Your task to perform on an android device: move a message to another label in the gmail app Image 0: 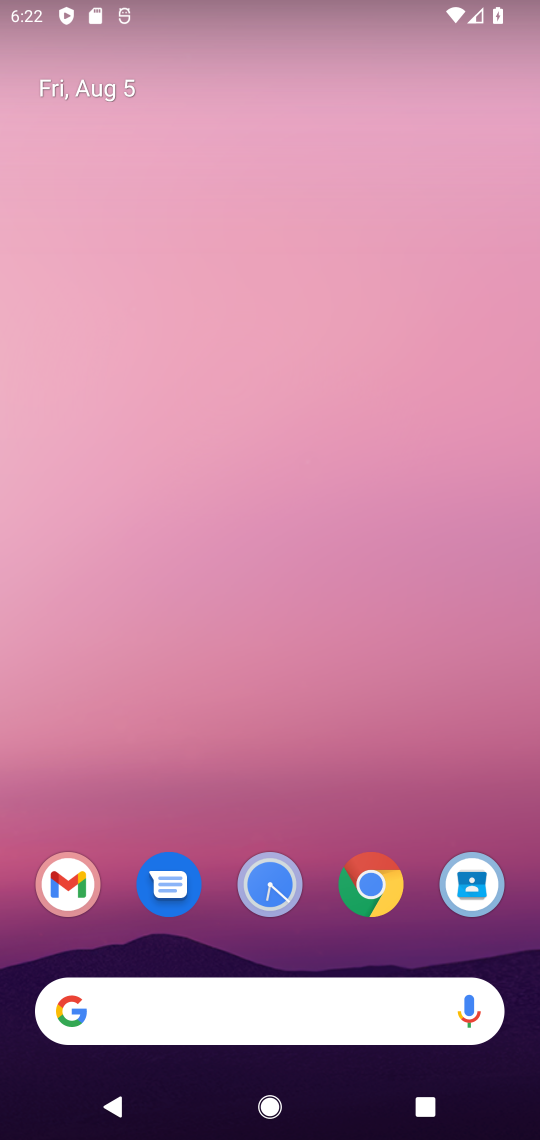
Step 0: drag from (315, 855) to (317, 167)
Your task to perform on an android device: move a message to another label in the gmail app Image 1: 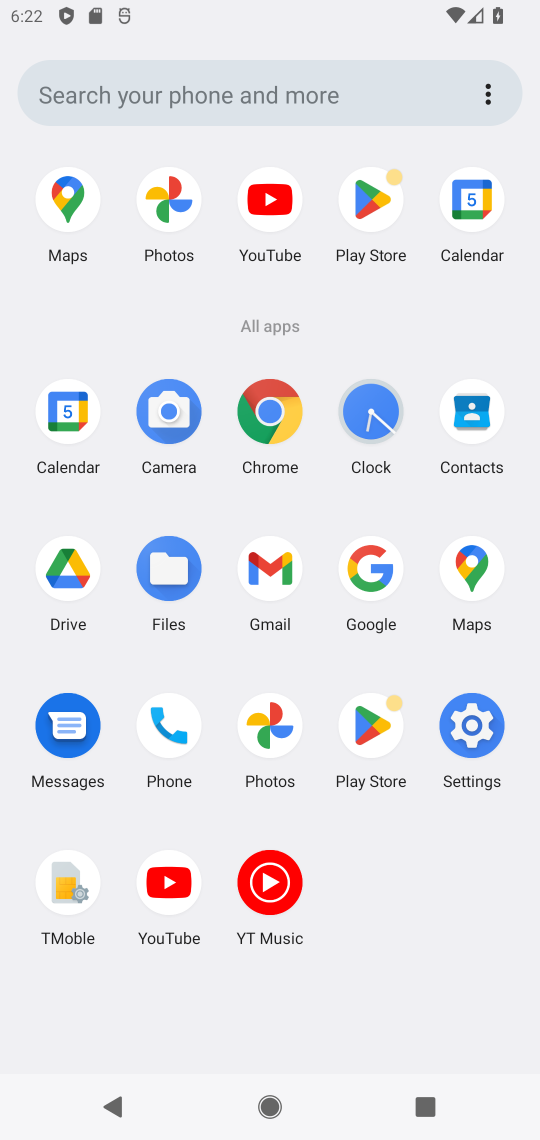
Step 1: click (273, 555)
Your task to perform on an android device: move a message to another label in the gmail app Image 2: 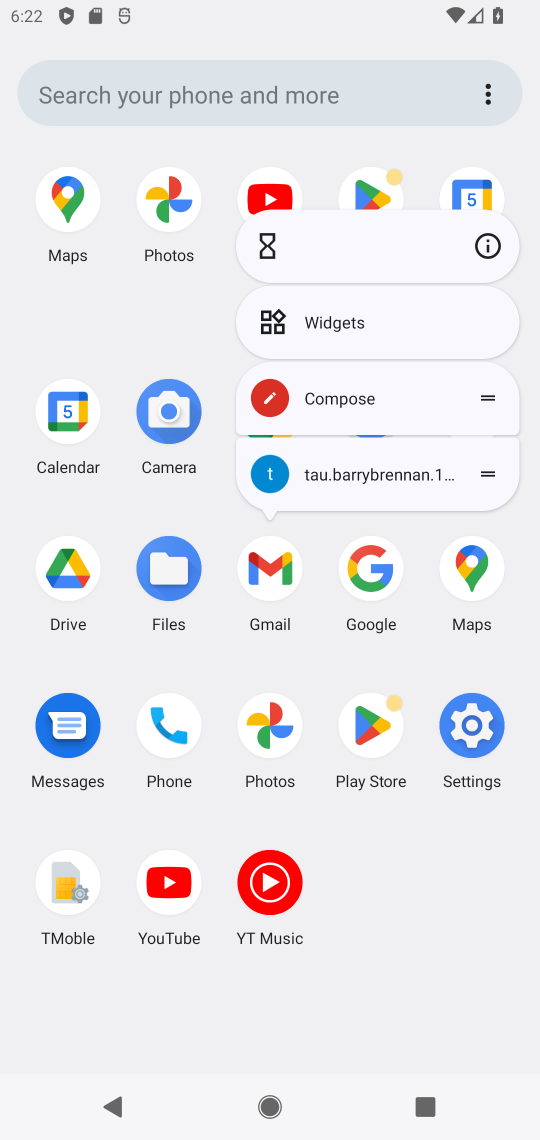
Step 2: click (268, 566)
Your task to perform on an android device: move a message to another label in the gmail app Image 3: 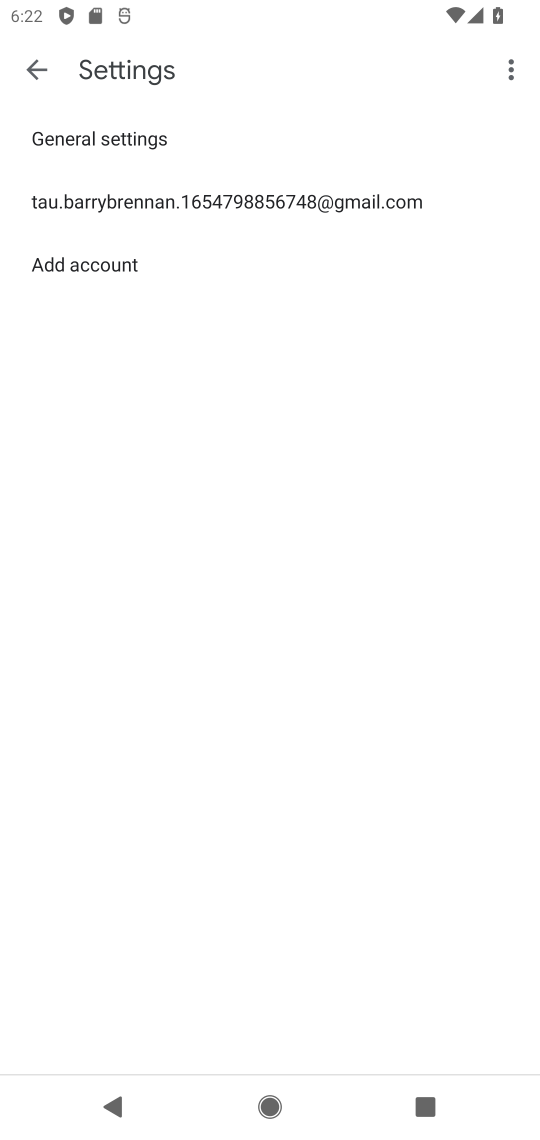
Step 3: click (40, 67)
Your task to perform on an android device: move a message to another label in the gmail app Image 4: 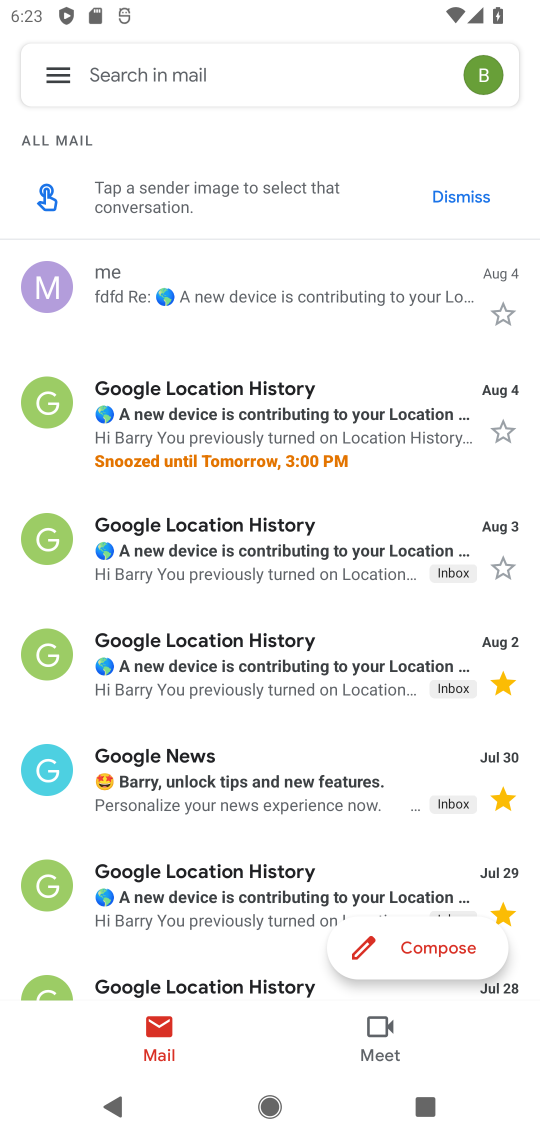
Step 4: click (48, 545)
Your task to perform on an android device: move a message to another label in the gmail app Image 5: 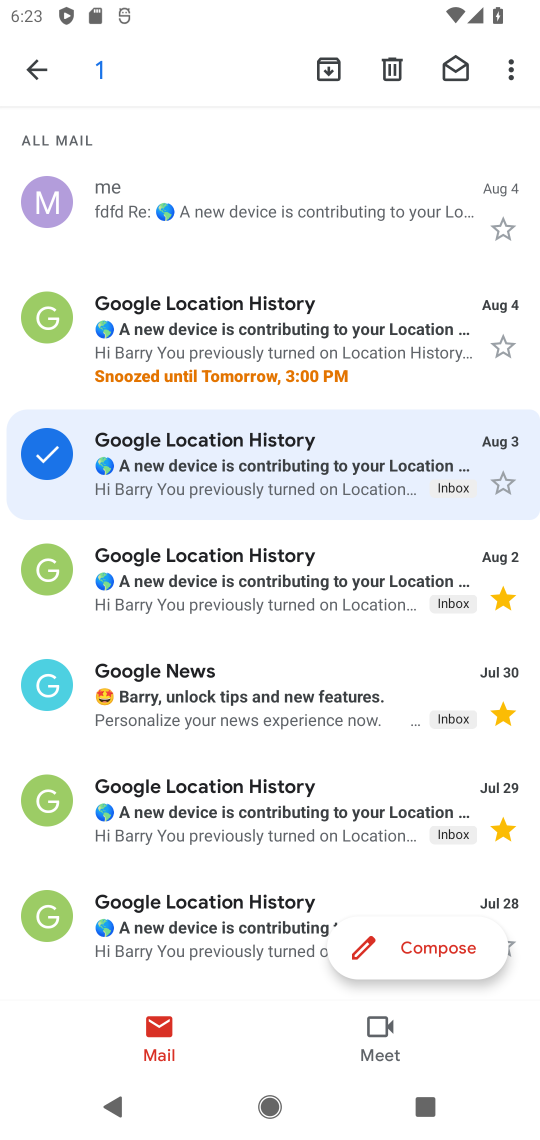
Step 5: click (508, 63)
Your task to perform on an android device: move a message to another label in the gmail app Image 6: 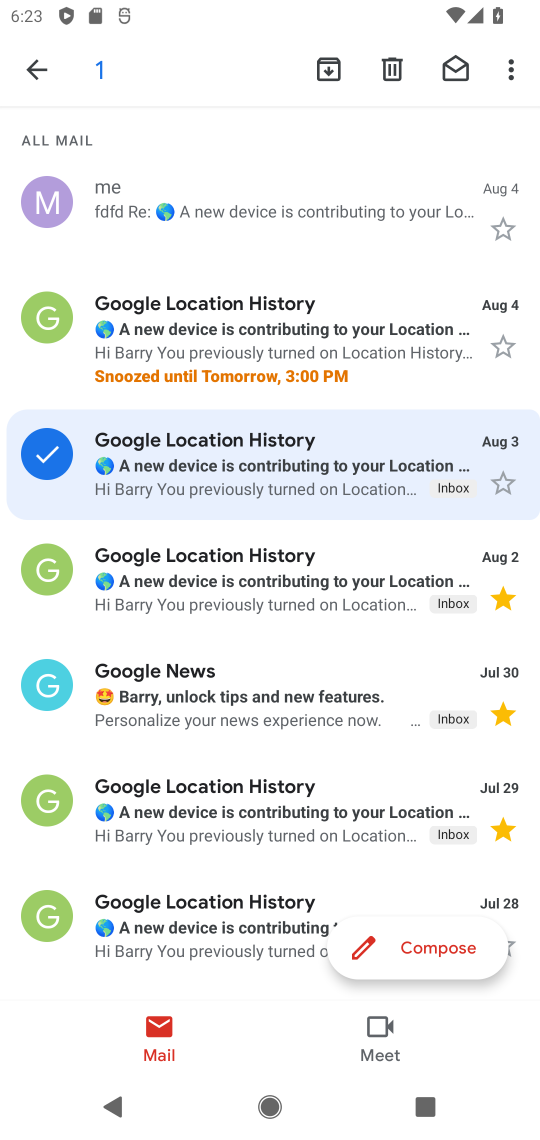
Step 6: click (515, 66)
Your task to perform on an android device: move a message to another label in the gmail app Image 7: 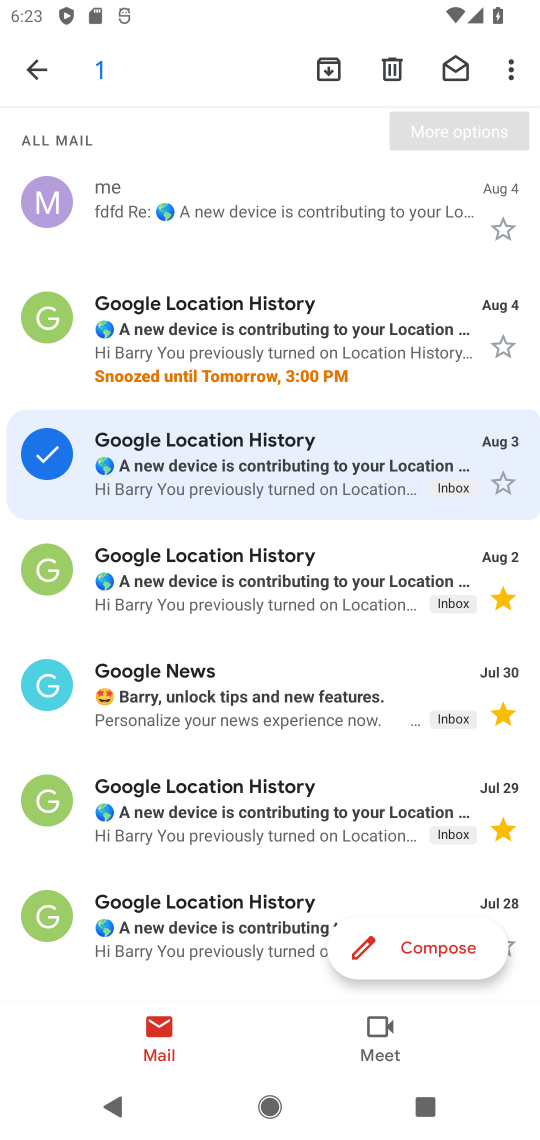
Step 7: click (492, 126)
Your task to perform on an android device: move a message to another label in the gmail app Image 8: 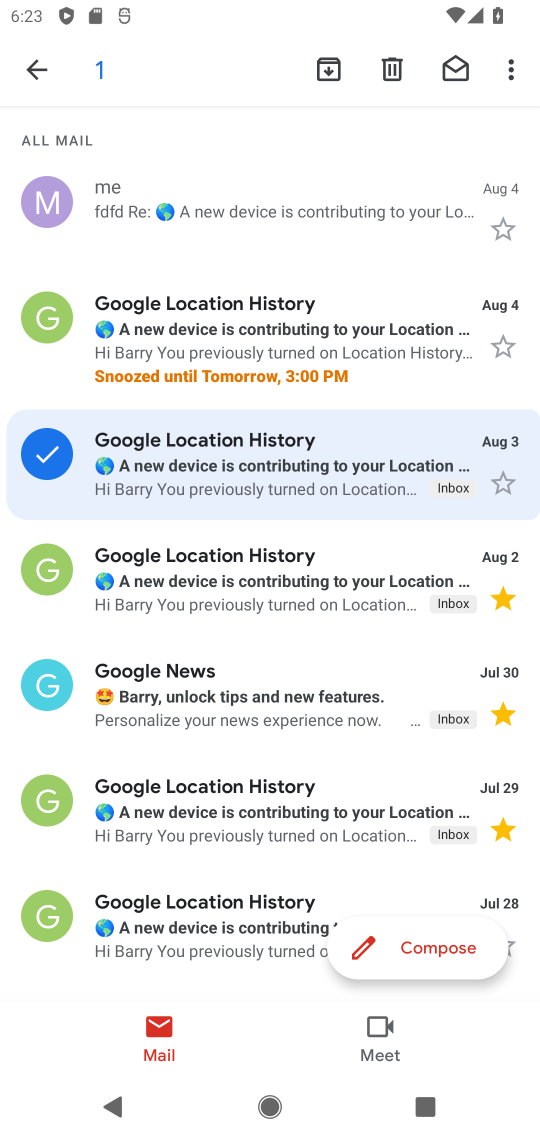
Step 8: click (502, 66)
Your task to perform on an android device: move a message to another label in the gmail app Image 9: 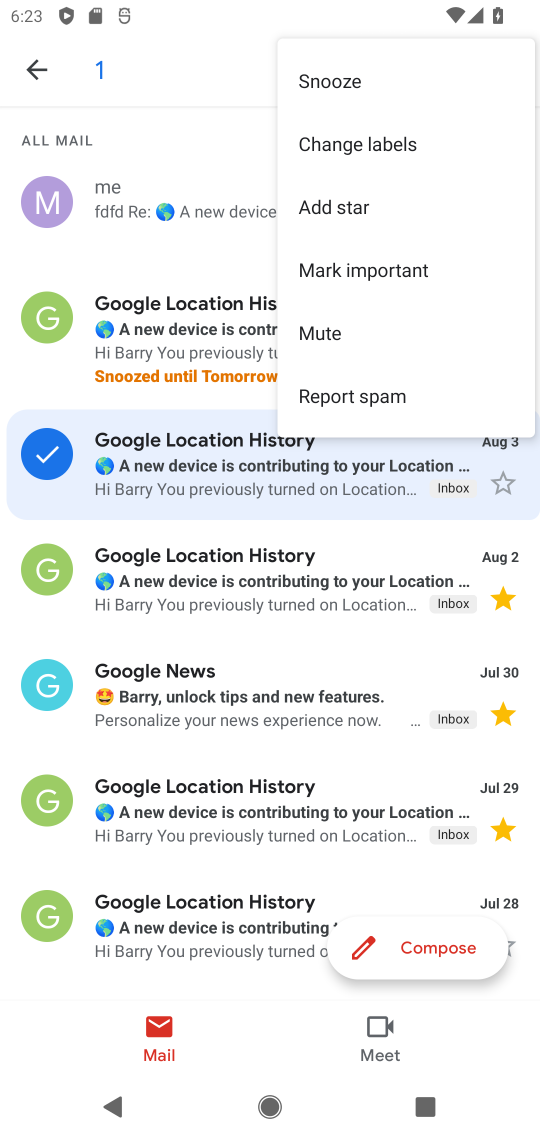
Step 9: task complete